Your task to perform on an android device: Search for Mexican restaurants on Maps Image 0: 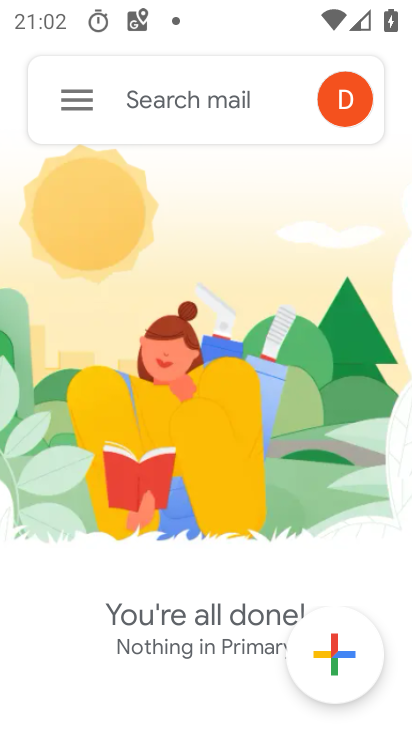
Step 0: press home button
Your task to perform on an android device: Search for Mexican restaurants on Maps Image 1: 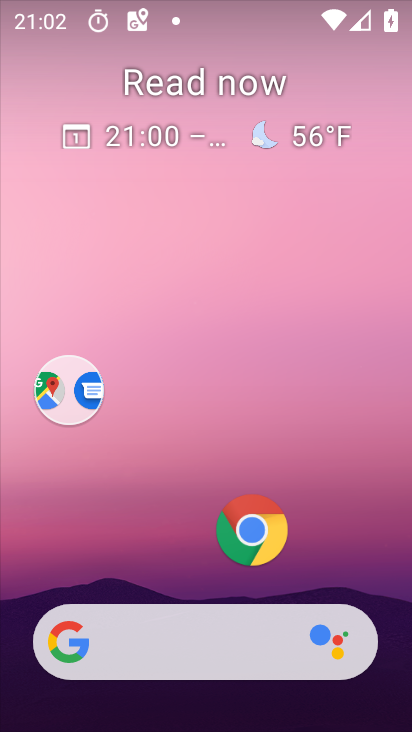
Step 1: drag from (161, 564) to (143, 111)
Your task to perform on an android device: Search for Mexican restaurants on Maps Image 2: 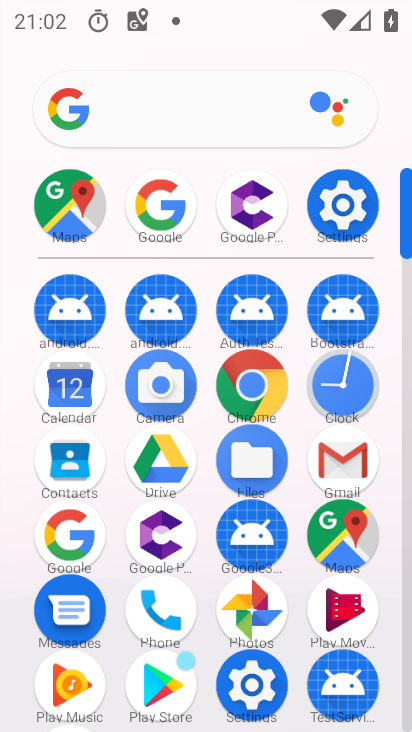
Step 2: click (74, 205)
Your task to perform on an android device: Search for Mexican restaurants on Maps Image 3: 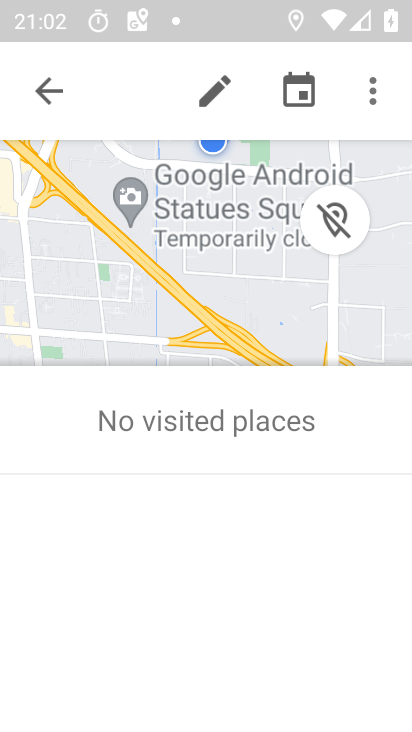
Step 3: press back button
Your task to perform on an android device: Search for Mexican restaurants on Maps Image 4: 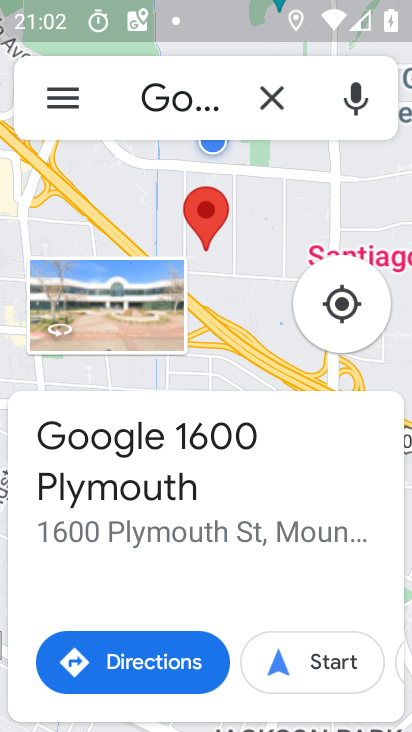
Step 4: click (273, 72)
Your task to perform on an android device: Search for Mexican restaurants on Maps Image 5: 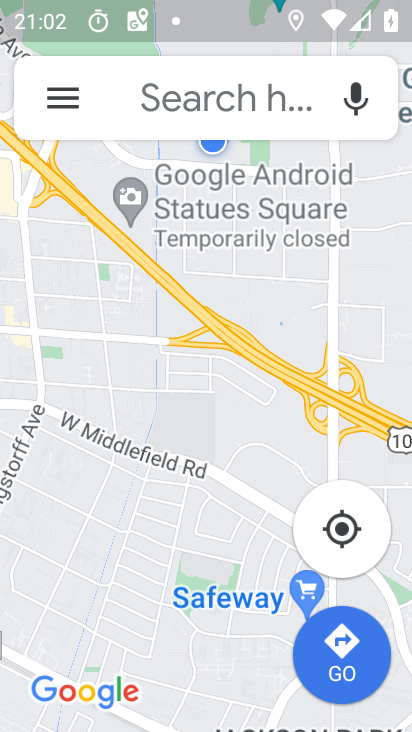
Step 5: click (219, 99)
Your task to perform on an android device: Search for Mexican restaurants on Maps Image 6: 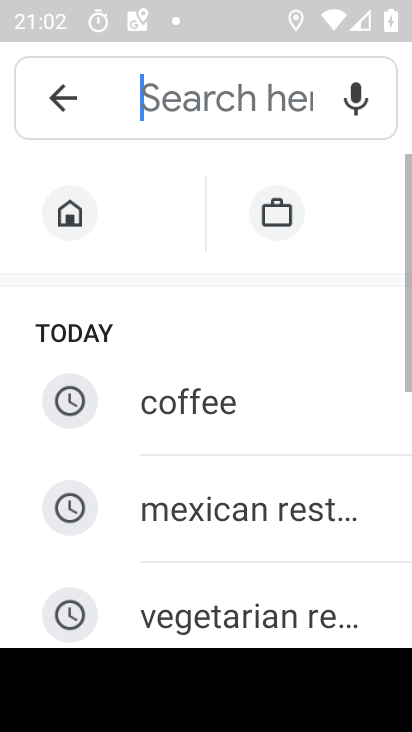
Step 6: click (247, 521)
Your task to perform on an android device: Search for Mexican restaurants on Maps Image 7: 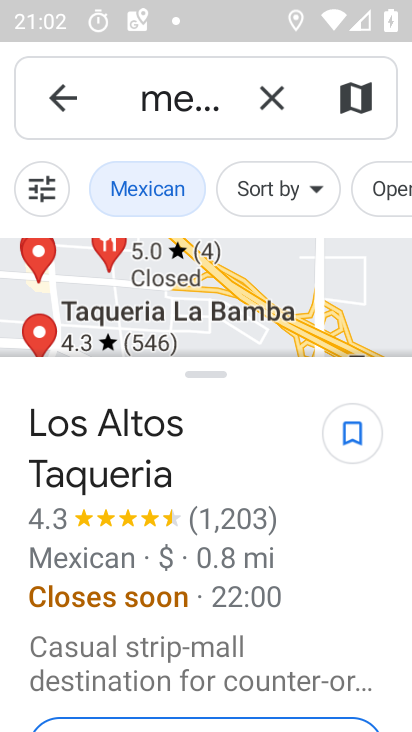
Step 7: task complete